Your task to perform on an android device: Search for "razer blade" on walmart.com, select the first entry, add it to the cart, then select checkout. Image 0: 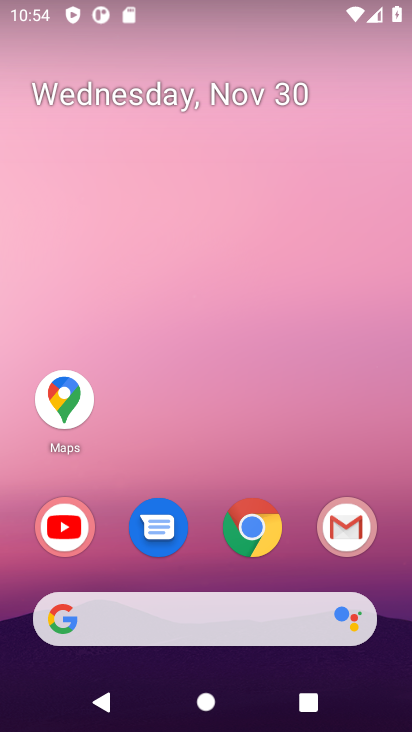
Step 0: click (260, 529)
Your task to perform on an android device: Search for "razer blade" on walmart.com, select the first entry, add it to the cart, then select checkout. Image 1: 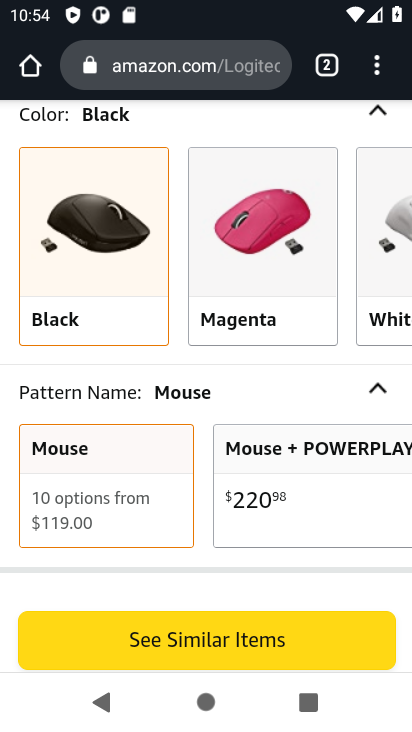
Step 1: click (196, 61)
Your task to perform on an android device: Search for "razer blade" on walmart.com, select the first entry, add it to the cart, then select checkout. Image 2: 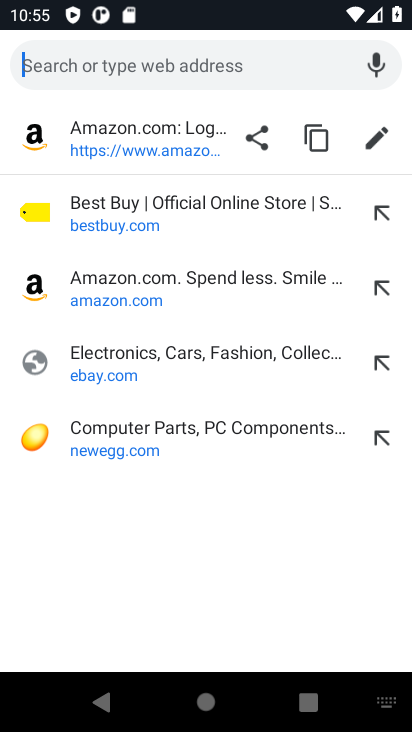
Step 2: type "walmart.com"
Your task to perform on an android device: Search for "razer blade" on walmart.com, select the first entry, add it to the cart, then select checkout. Image 3: 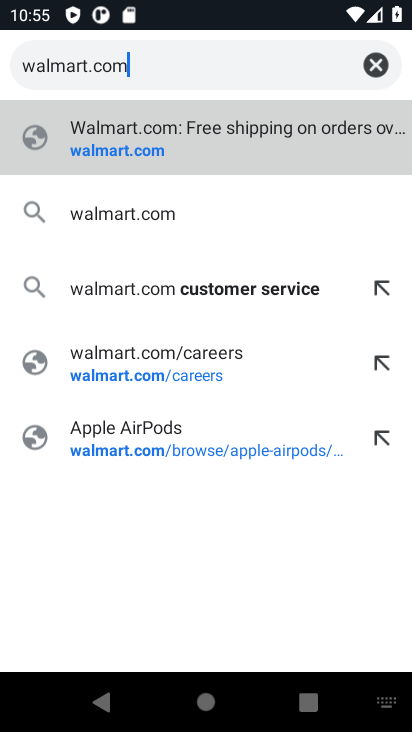
Step 3: click (109, 150)
Your task to perform on an android device: Search for "razer blade" on walmart.com, select the first entry, add it to the cart, then select checkout. Image 4: 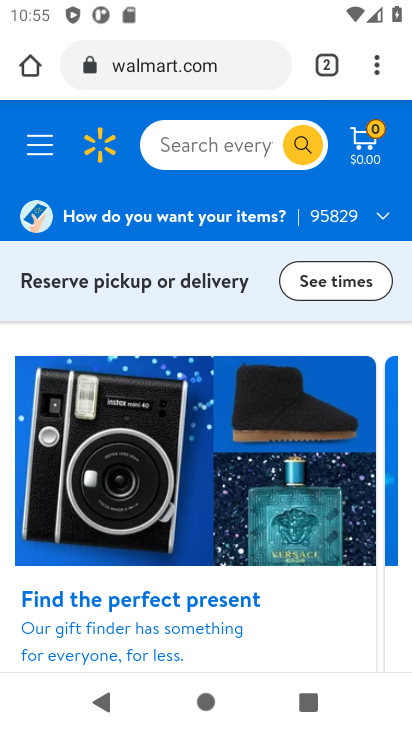
Step 4: click (175, 141)
Your task to perform on an android device: Search for "razer blade" on walmart.com, select the first entry, add it to the cart, then select checkout. Image 5: 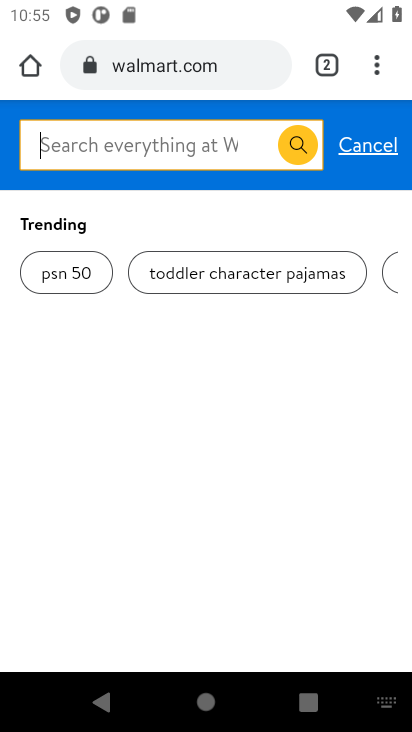
Step 5: type "razer blade"
Your task to perform on an android device: Search for "razer blade" on walmart.com, select the first entry, add it to the cart, then select checkout. Image 6: 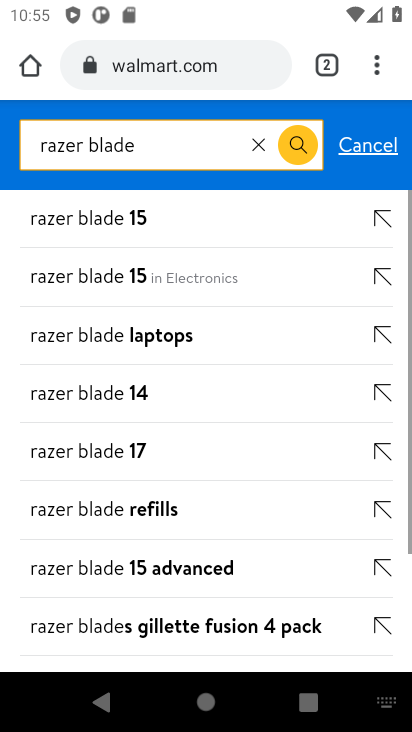
Step 6: click (301, 147)
Your task to perform on an android device: Search for "razer blade" on walmart.com, select the first entry, add it to the cart, then select checkout. Image 7: 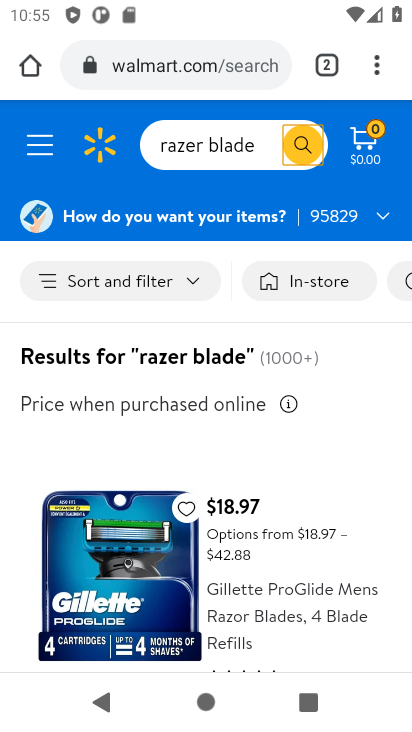
Step 7: task complete